Your task to perform on an android device: open sync settings in chrome Image 0: 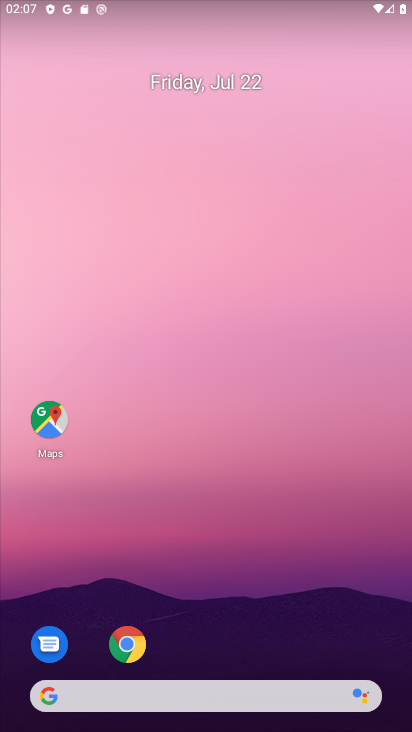
Step 0: click (124, 634)
Your task to perform on an android device: open sync settings in chrome Image 1: 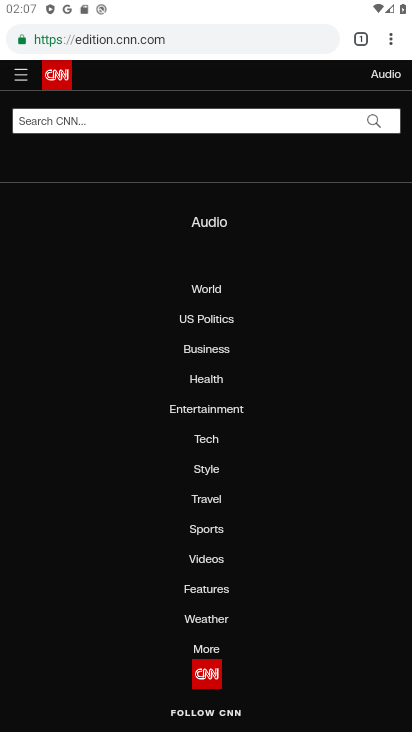
Step 1: click (396, 36)
Your task to perform on an android device: open sync settings in chrome Image 2: 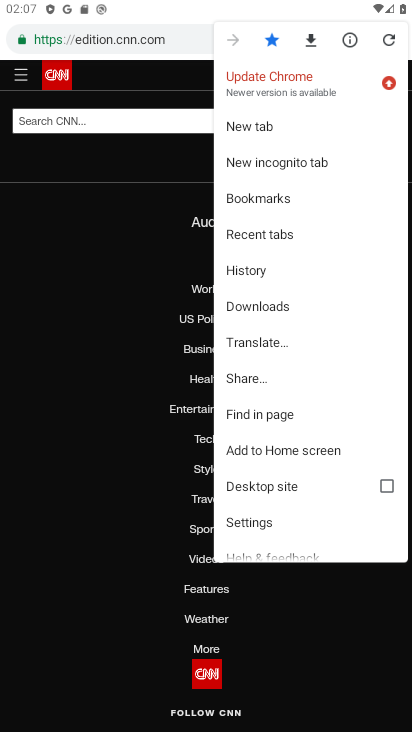
Step 2: click (272, 512)
Your task to perform on an android device: open sync settings in chrome Image 3: 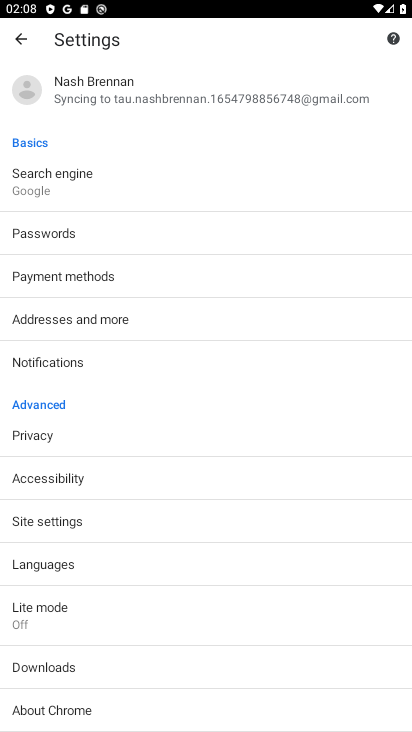
Step 3: click (224, 106)
Your task to perform on an android device: open sync settings in chrome Image 4: 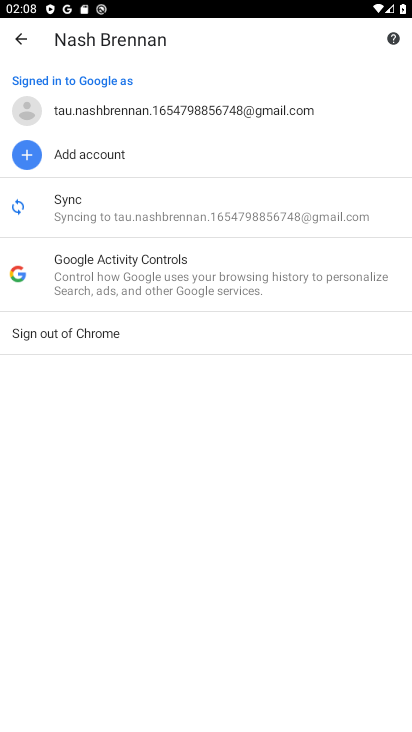
Step 4: task complete